Your task to perform on an android device: change text size in settings app Image 0: 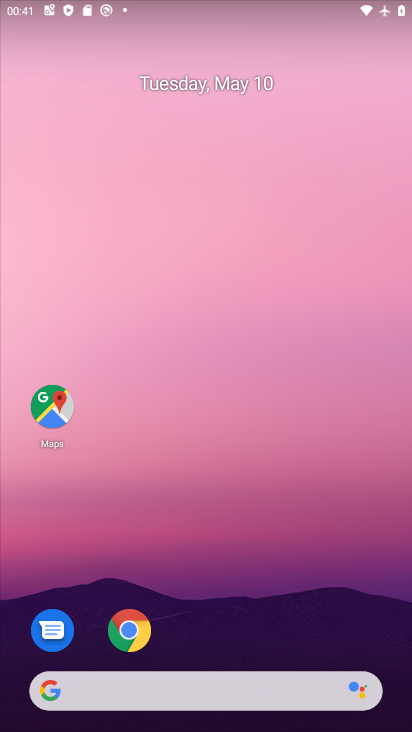
Step 0: drag from (208, 726) to (208, 284)
Your task to perform on an android device: change text size in settings app Image 1: 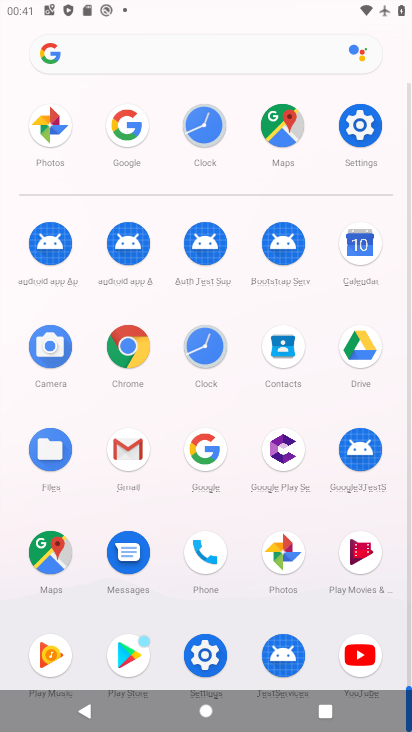
Step 1: click (359, 121)
Your task to perform on an android device: change text size in settings app Image 2: 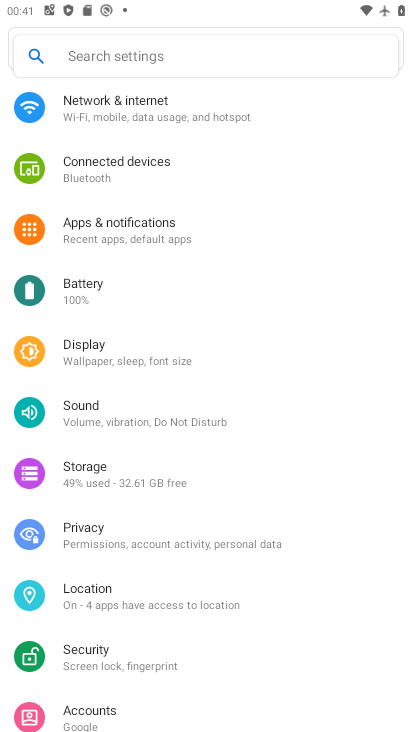
Step 2: click (122, 354)
Your task to perform on an android device: change text size in settings app Image 3: 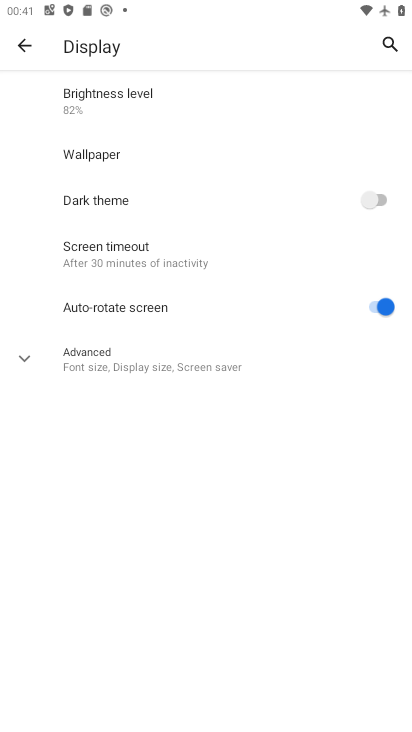
Step 3: click (114, 354)
Your task to perform on an android device: change text size in settings app Image 4: 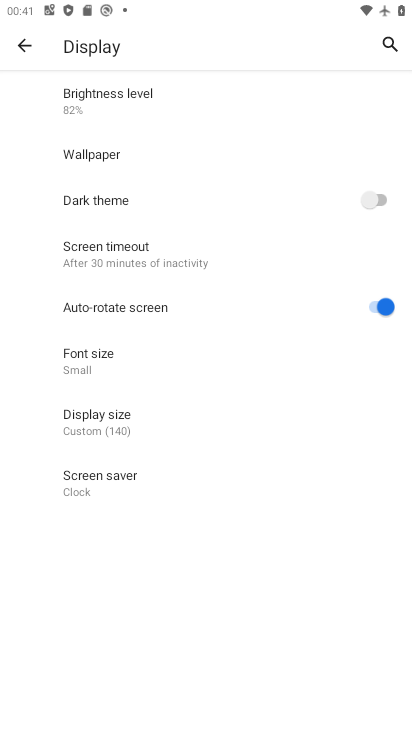
Step 4: click (91, 352)
Your task to perform on an android device: change text size in settings app Image 5: 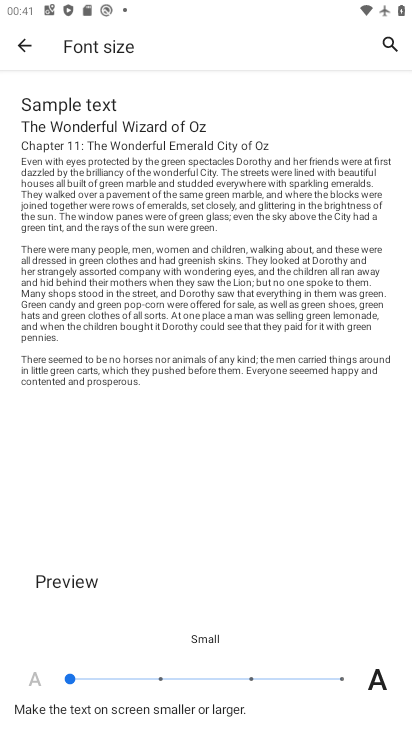
Step 5: click (162, 677)
Your task to perform on an android device: change text size in settings app Image 6: 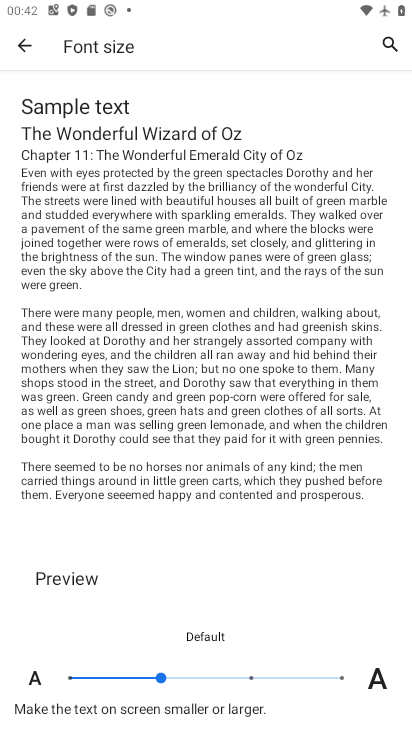
Step 6: task complete